Your task to perform on an android device: Open the web browser Image 0: 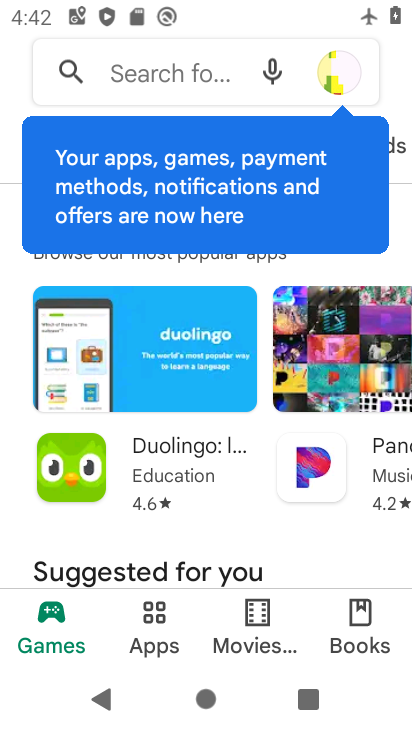
Step 0: drag from (222, 284) to (139, 100)
Your task to perform on an android device: Open the web browser Image 1: 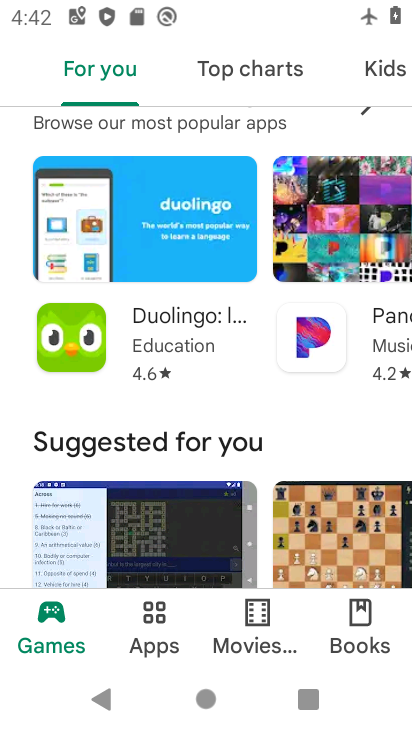
Step 1: press back button
Your task to perform on an android device: Open the web browser Image 2: 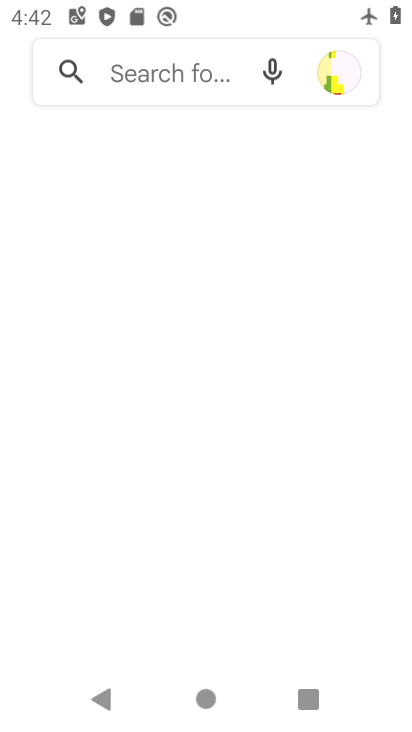
Step 2: press back button
Your task to perform on an android device: Open the web browser Image 3: 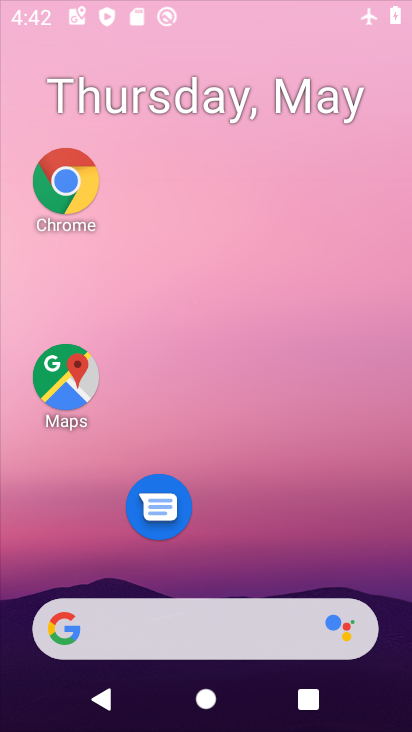
Step 3: press back button
Your task to perform on an android device: Open the web browser Image 4: 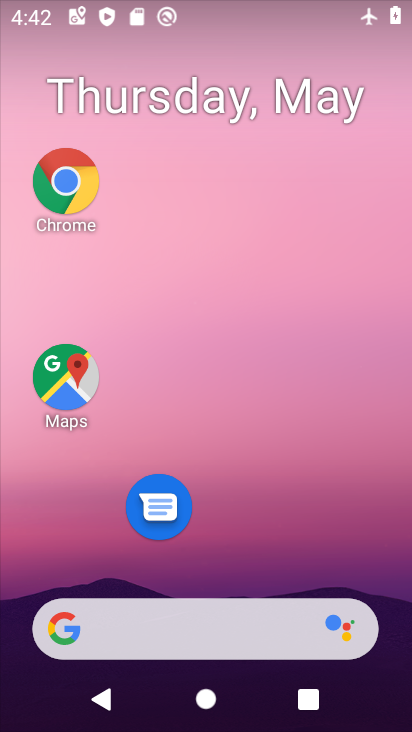
Step 4: click (121, 63)
Your task to perform on an android device: Open the web browser Image 5: 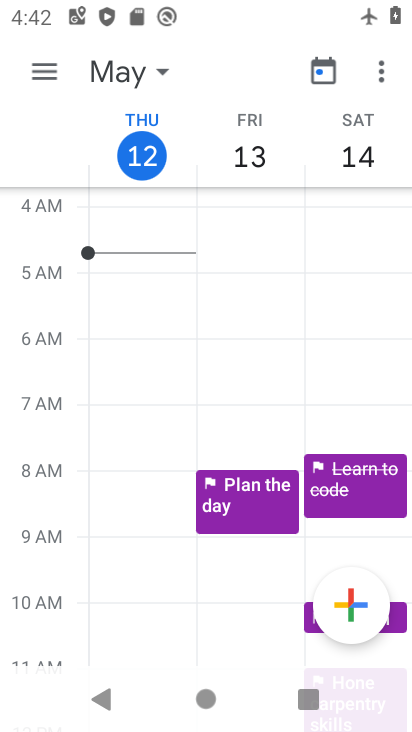
Step 5: press back button
Your task to perform on an android device: Open the web browser Image 6: 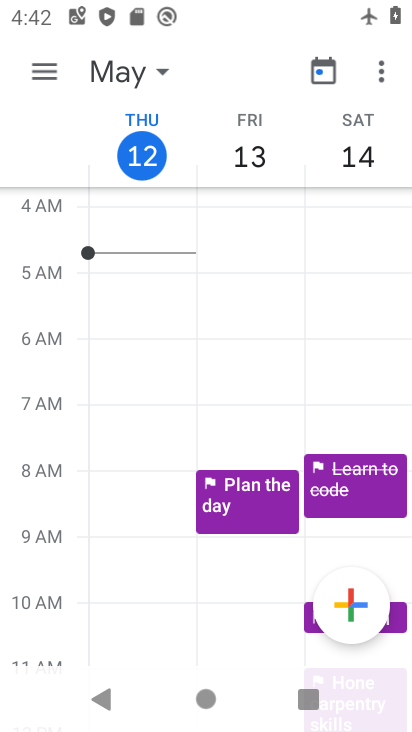
Step 6: press back button
Your task to perform on an android device: Open the web browser Image 7: 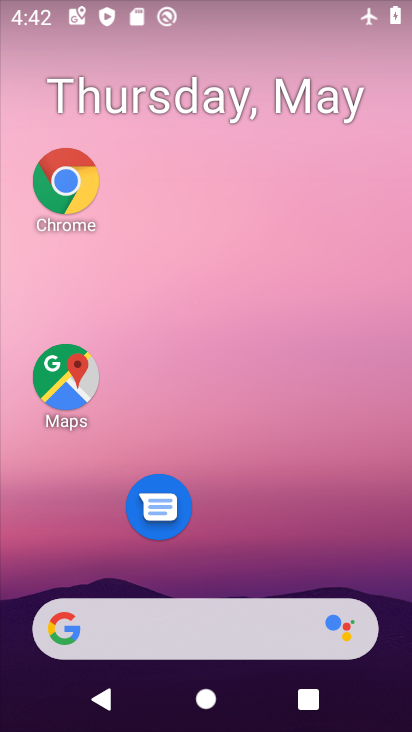
Step 7: drag from (196, 157) to (125, 0)
Your task to perform on an android device: Open the web browser Image 8: 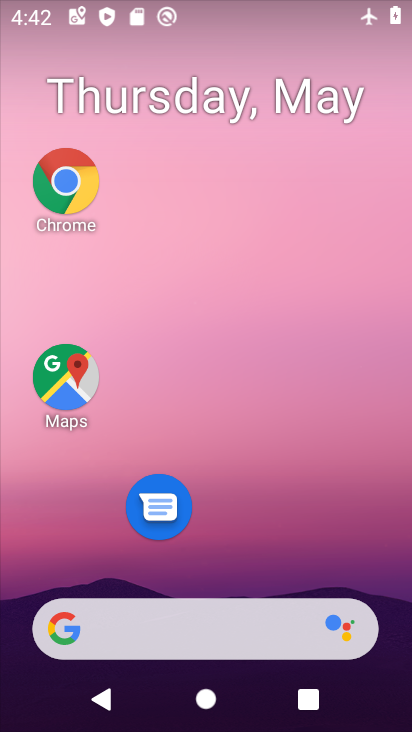
Step 8: drag from (375, 571) to (168, 131)
Your task to perform on an android device: Open the web browser Image 9: 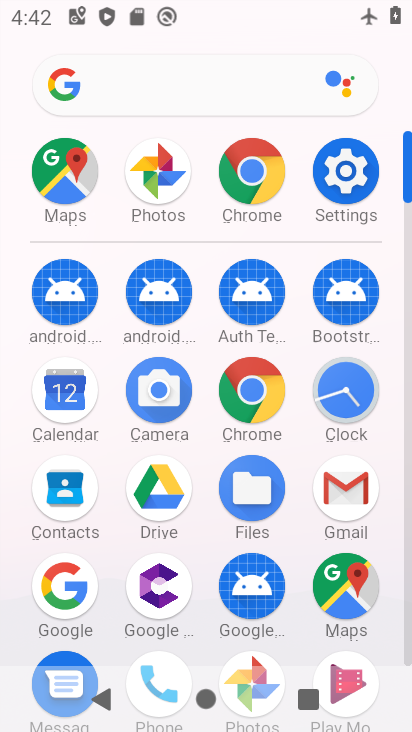
Step 9: click (239, 186)
Your task to perform on an android device: Open the web browser Image 10: 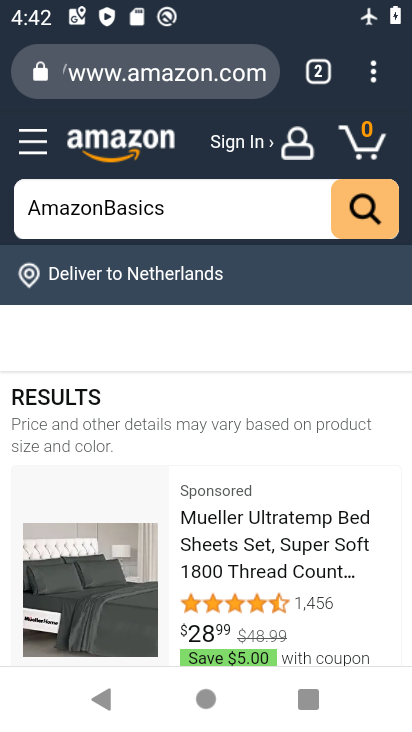
Step 10: drag from (370, 75) to (104, 144)
Your task to perform on an android device: Open the web browser Image 11: 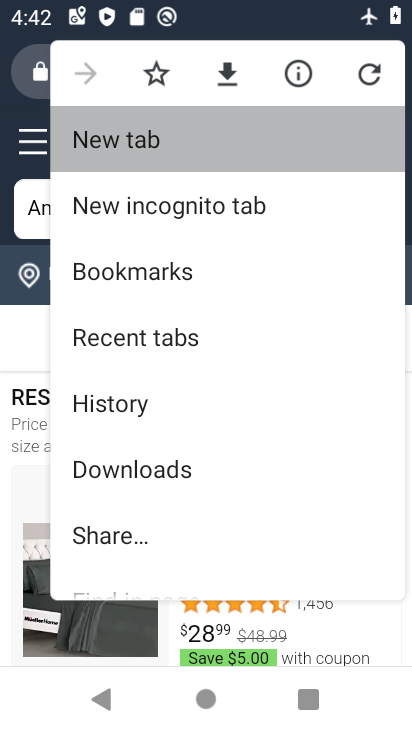
Step 11: click (106, 147)
Your task to perform on an android device: Open the web browser Image 12: 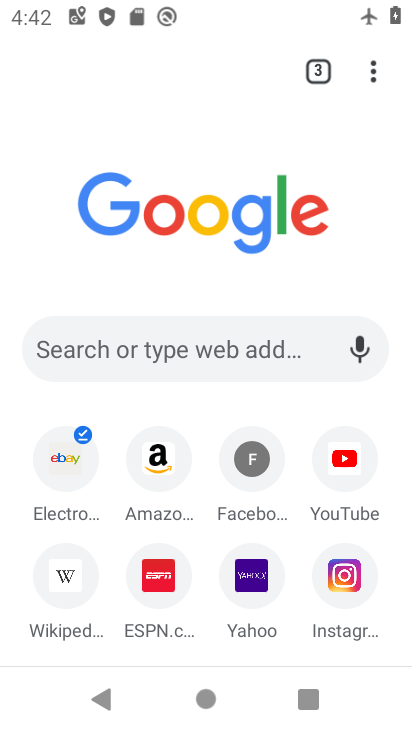
Step 12: task complete